Your task to perform on an android device: Clear all items from cart on target. Image 0: 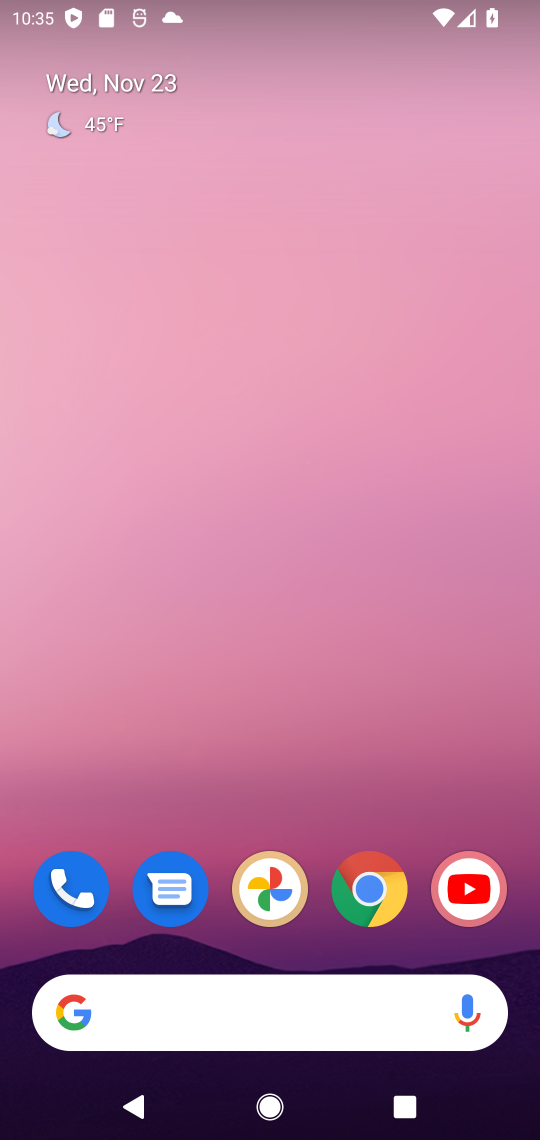
Step 0: click (362, 900)
Your task to perform on an android device: Clear all items from cart on target. Image 1: 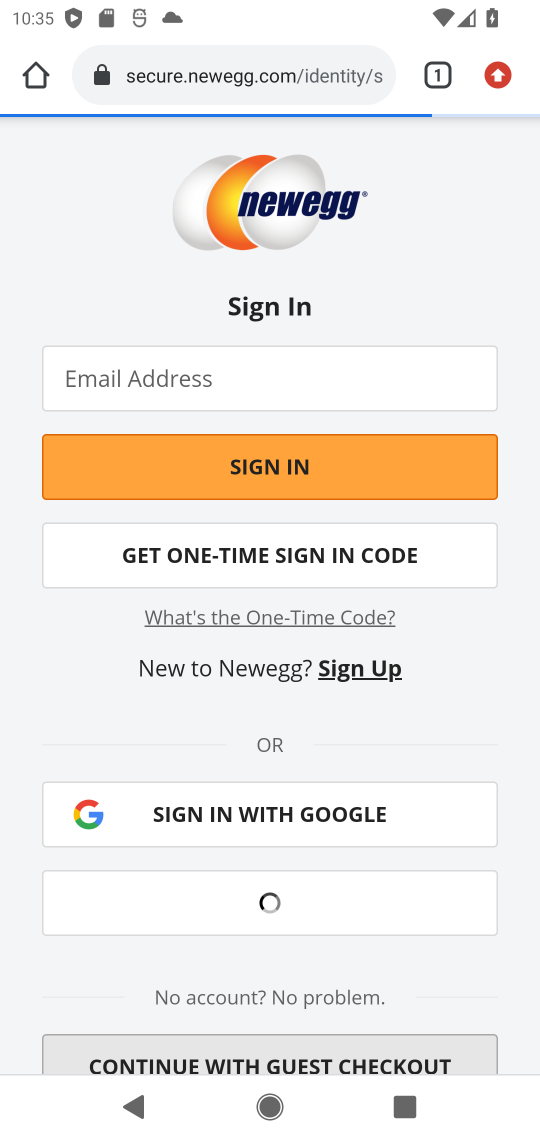
Step 1: click (208, 71)
Your task to perform on an android device: Clear all items from cart on target. Image 2: 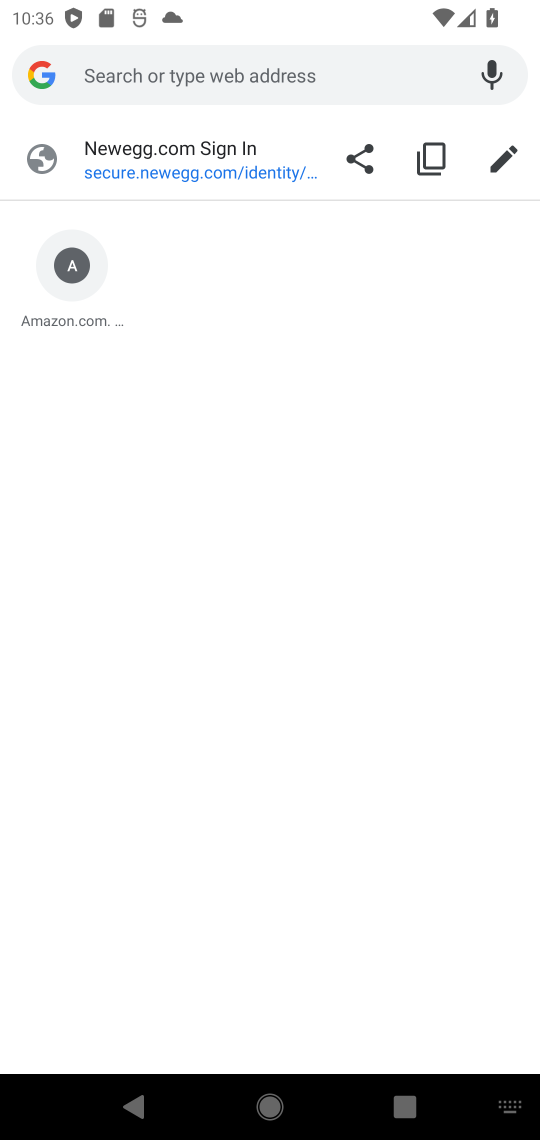
Step 2: type "target.com"
Your task to perform on an android device: Clear all items from cart on target. Image 3: 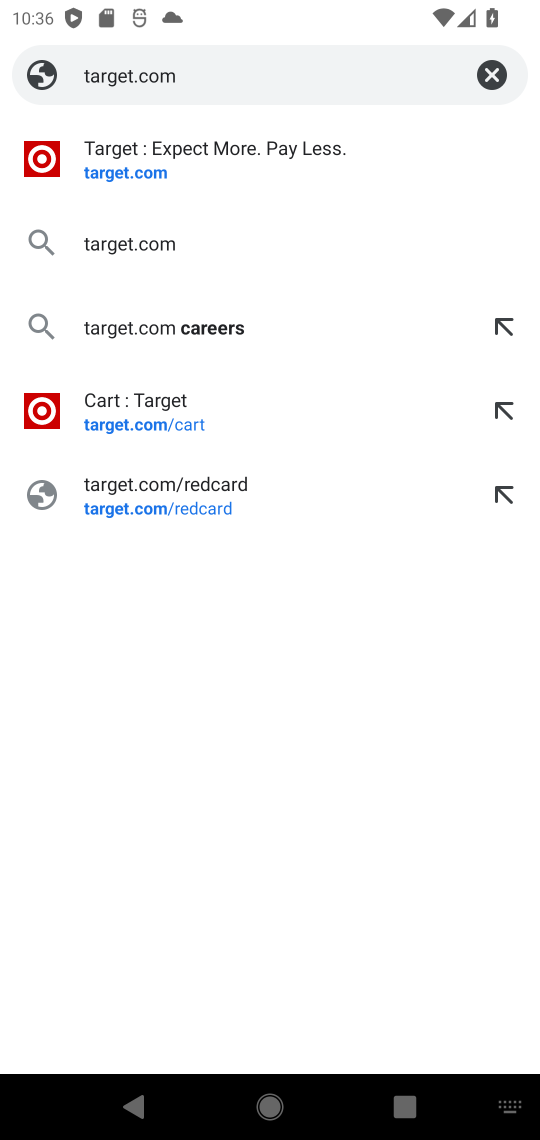
Step 3: click (130, 168)
Your task to perform on an android device: Clear all items from cart on target. Image 4: 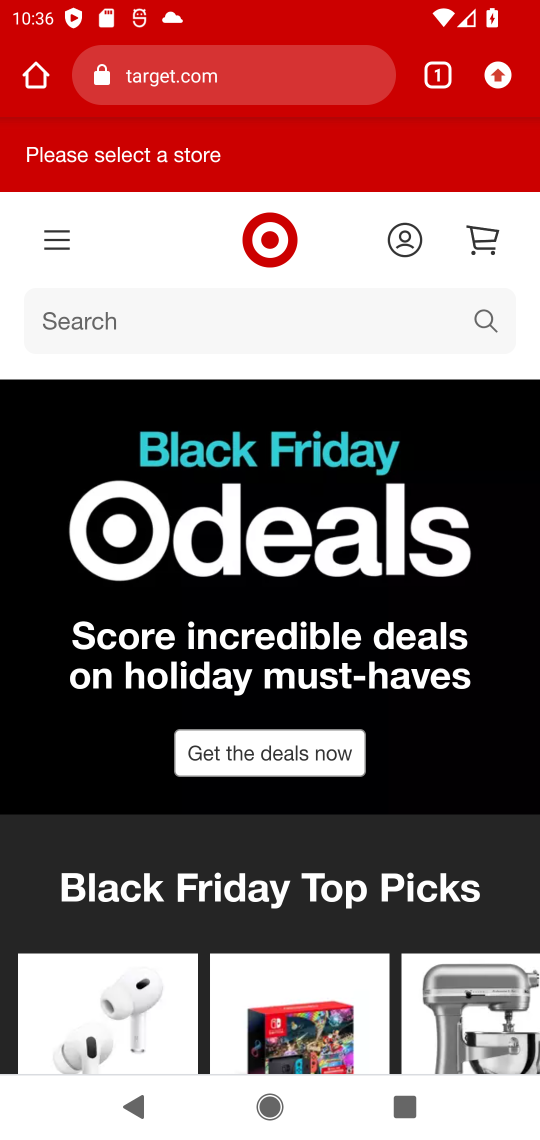
Step 4: click (476, 244)
Your task to perform on an android device: Clear all items from cart on target. Image 5: 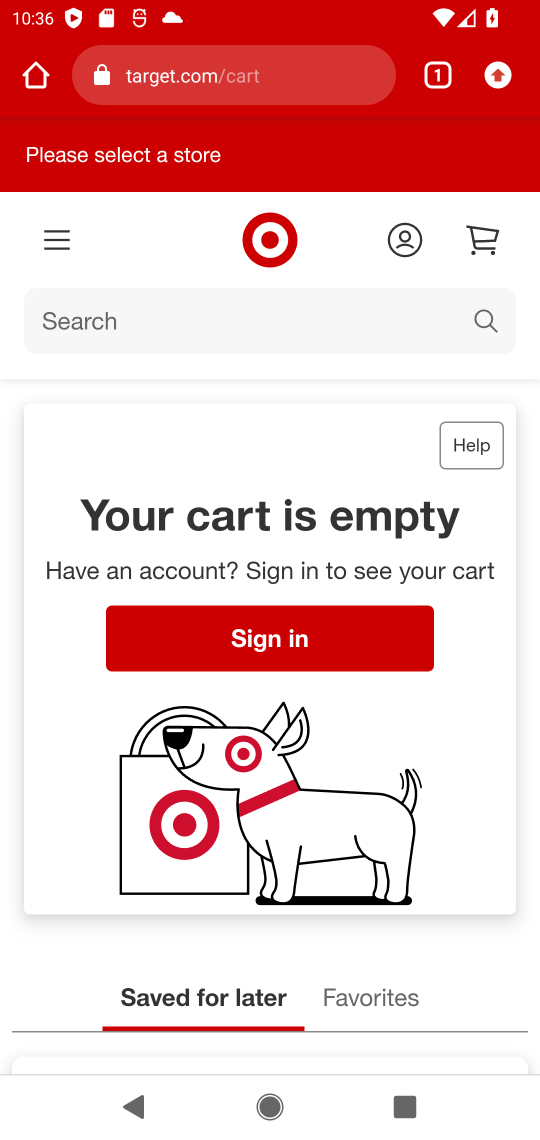
Step 5: task complete